Your task to perform on an android device: Do I have any events today? Image 0: 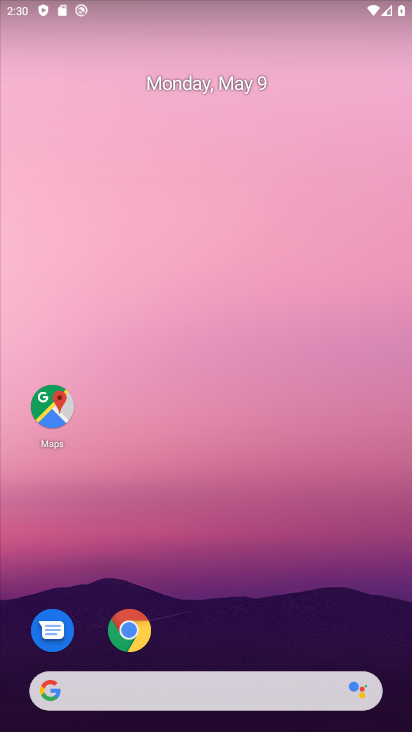
Step 0: drag from (251, 635) to (212, 295)
Your task to perform on an android device: Do I have any events today? Image 1: 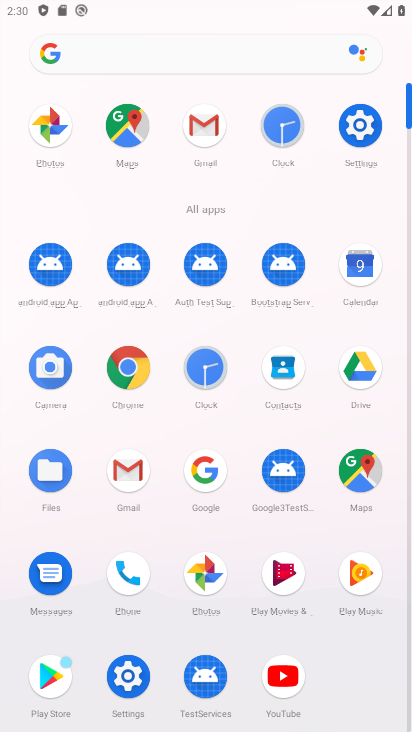
Step 1: click (362, 266)
Your task to perform on an android device: Do I have any events today? Image 2: 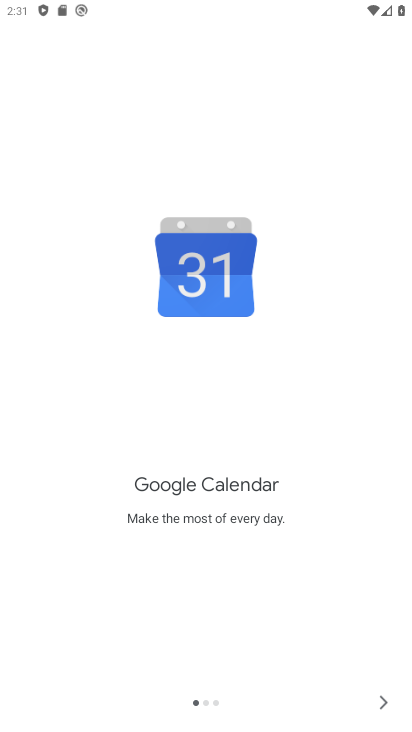
Step 2: click (379, 697)
Your task to perform on an android device: Do I have any events today? Image 3: 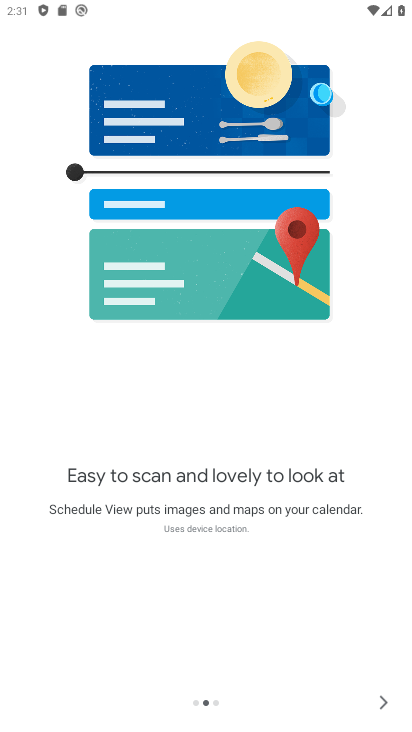
Step 3: click (379, 697)
Your task to perform on an android device: Do I have any events today? Image 4: 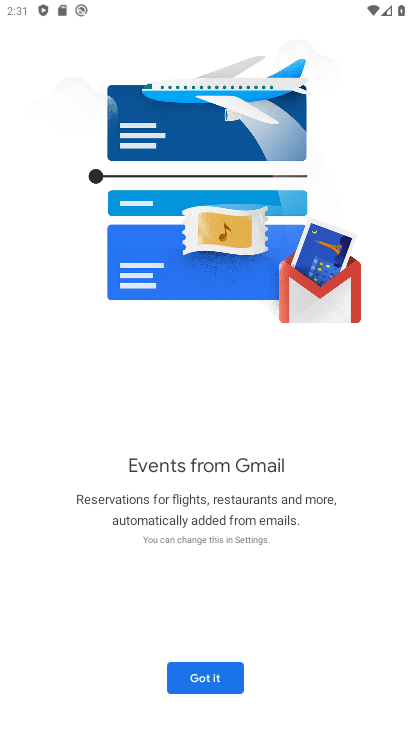
Step 4: click (216, 679)
Your task to perform on an android device: Do I have any events today? Image 5: 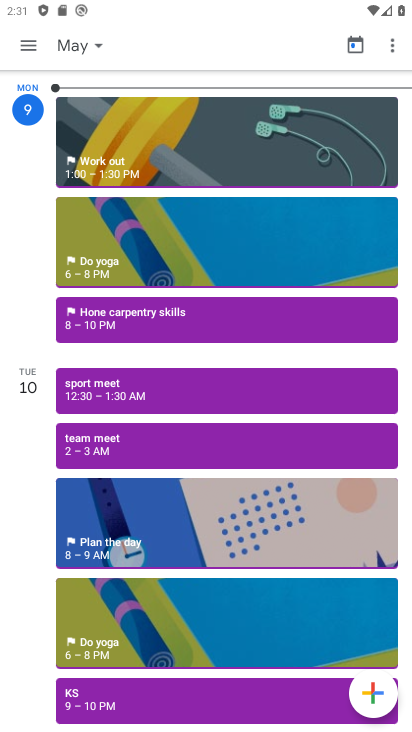
Step 5: click (33, 39)
Your task to perform on an android device: Do I have any events today? Image 6: 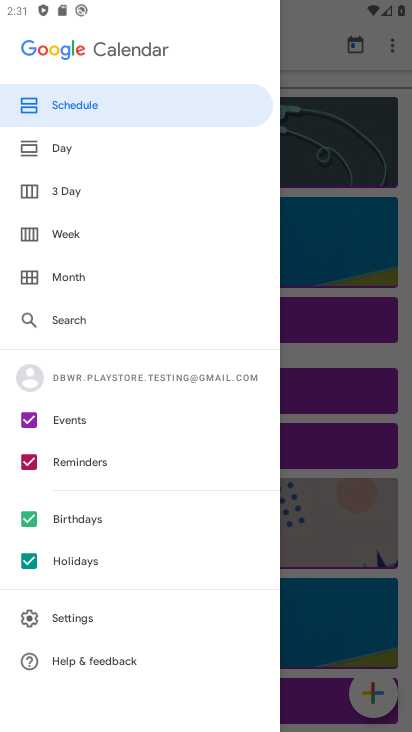
Step 6: click (28, 555)
Your task to perform on an android device: Do I have any events today? Image 7: 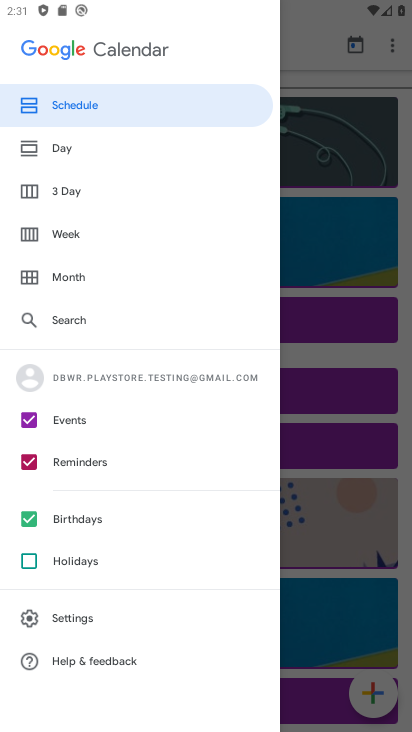
Step 7: click (29, 520)
Your task to perform on an android device: Do I have any events today? Image 8: 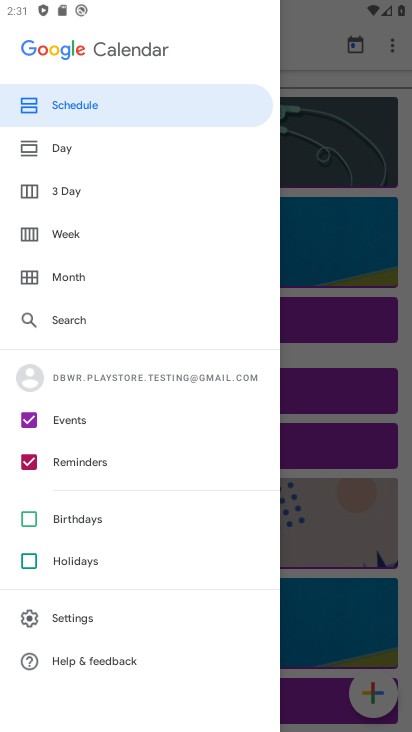
Step 8: click (33, 462)
Your task to perform on an android device: Do I have any events today? Image 9: 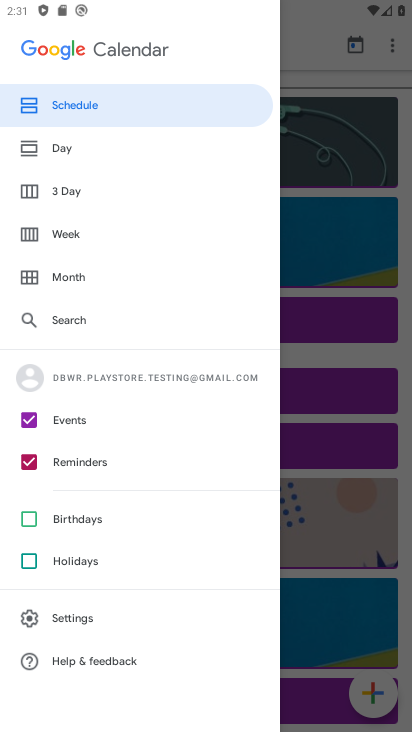
Step 9: click (103, 110)
Your task to perform on an android device: Do I have any events today? Image 10: 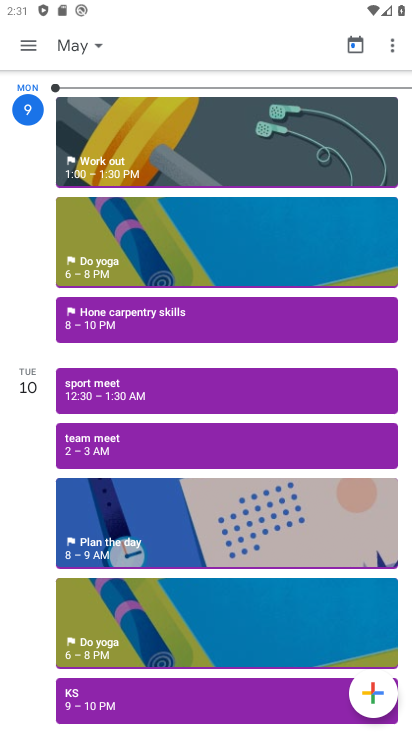
Step 10: task complete